Your task to perform on an android device: turn on data saver in the chrome app Image 0: 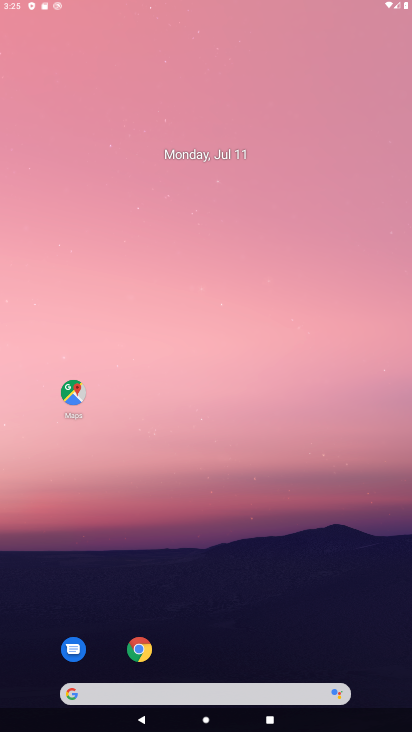
Step 0: click (153, 132)
Your task to perform on an android device: turn on data saver in the chrome app Image 1: 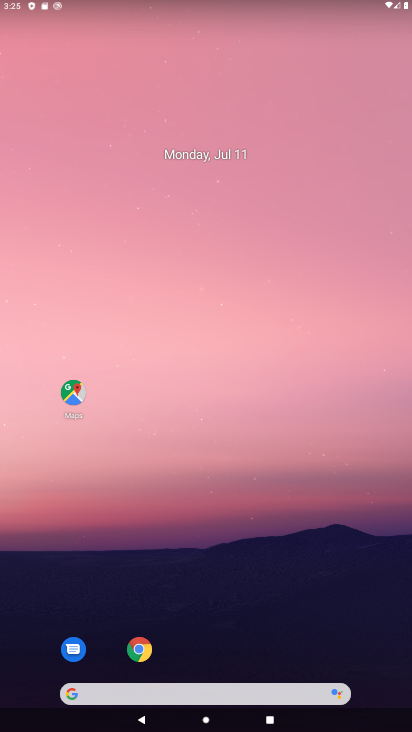
Step 1: drag from (193, 409) to (193, 189)
Your task to perform on an android device: turn on data saver in the chrome app Image 2: 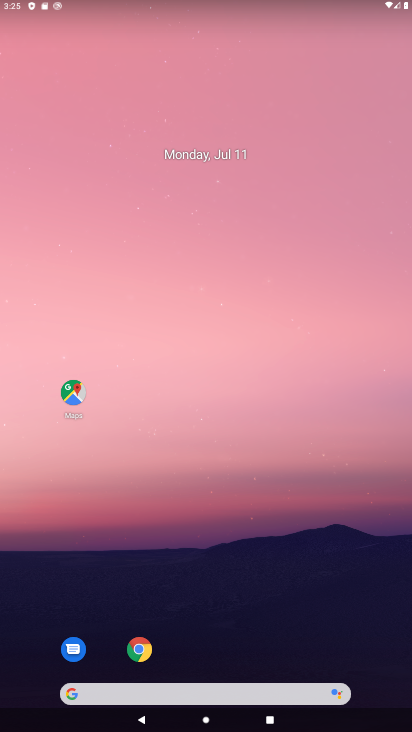
Step 2: click (158, 653)
Your task to perform on an android device: turn on data saver in the chrome app Image 3: 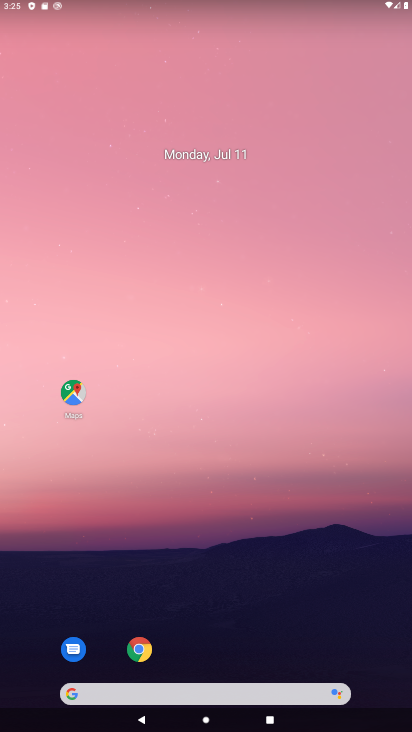
Step 3: click (135, 652)
Your task to perform on an android device: turn on data saver in the chrome app Image 4: 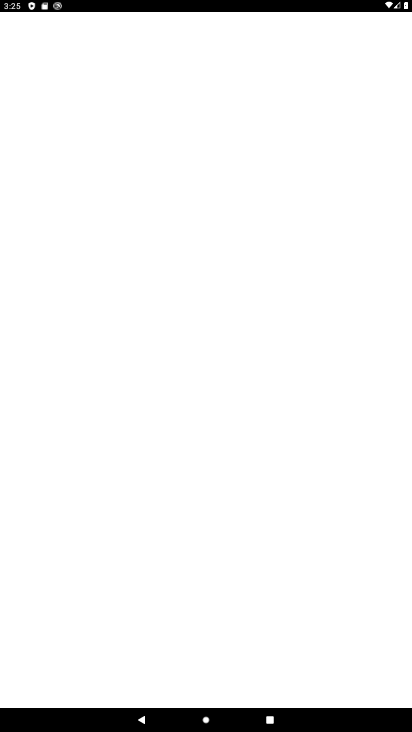
Step 4: click (136, 652)
Your task to perform on an android device: turn on data saver in the chrome app Image 5: 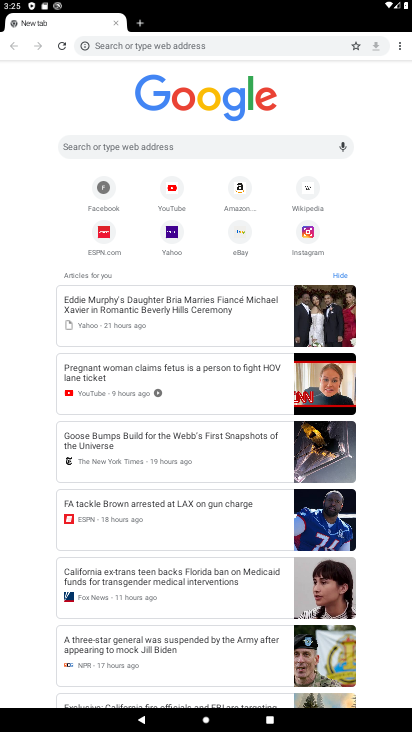
Step 5: click (394, 43)
Your task to perform on an android device: turn on data saver in the chrome app Image 6: 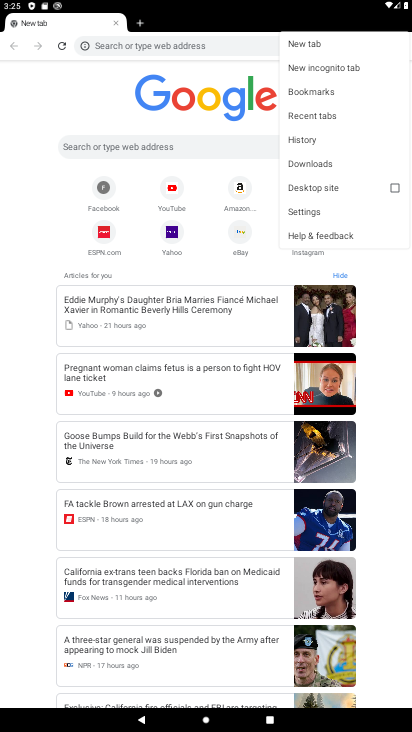
Step 6: click (320, 205)
Your task to perform on an android device: turn on data saver in the chrome app Image 7: 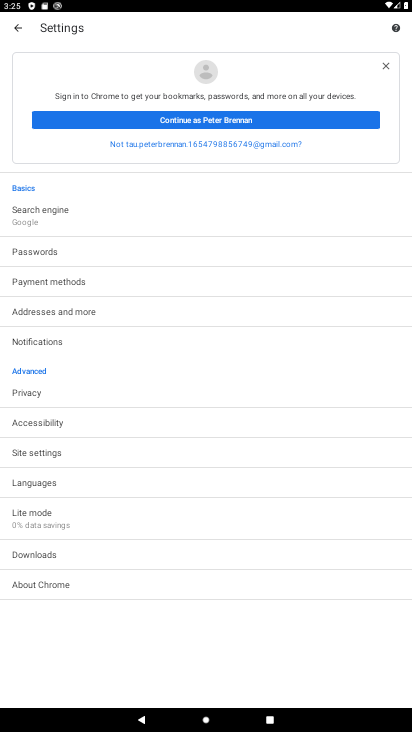
Step 7: click (74, 519)
Your task to perform on an android device: turn on data saver in the chrome app Image 8: 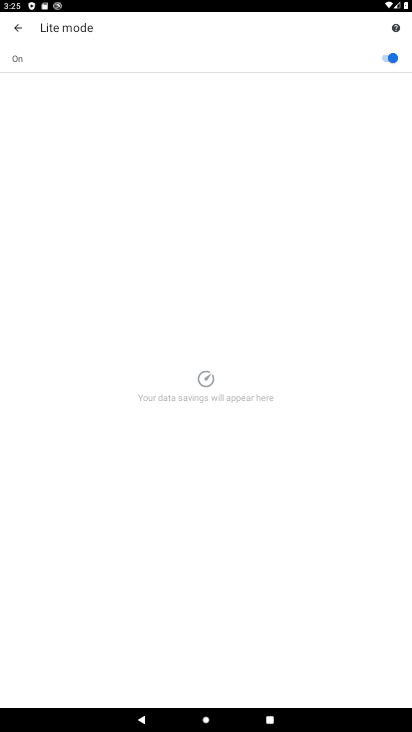
Step 8: task complete